Your task to perform on an android device: set the stopwatch Image 0: 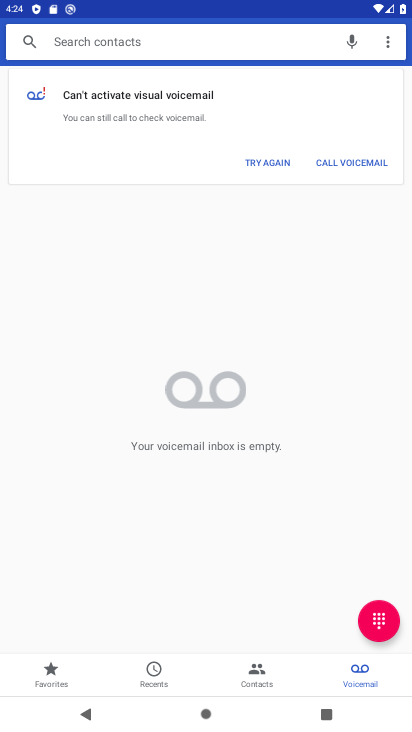
Step 0: press home button
Your task to perform on an android device: set the stopwatch Image 1: 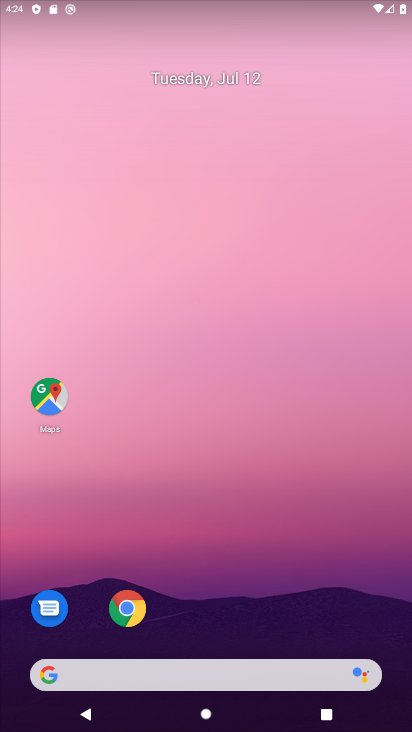
Step 1: drag from (228, 621) to (149, 98)
Your task to perform on an android device: set the stopwatch Image 2: 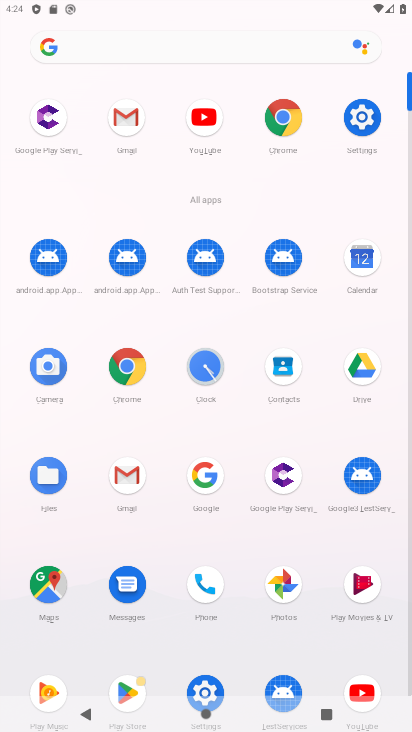
Step 2: click (210, 372)
Your task to perform on an android device: set the stopwatch Image 3: 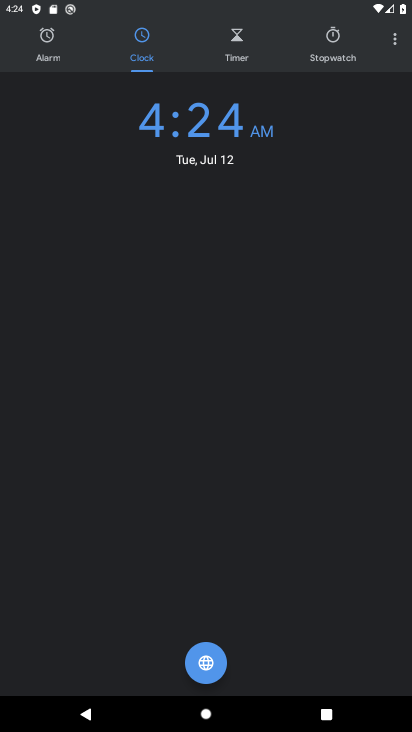
Step 3: click (321, 59)
Your task to perform on an android device: set the stopwatch Image 4: 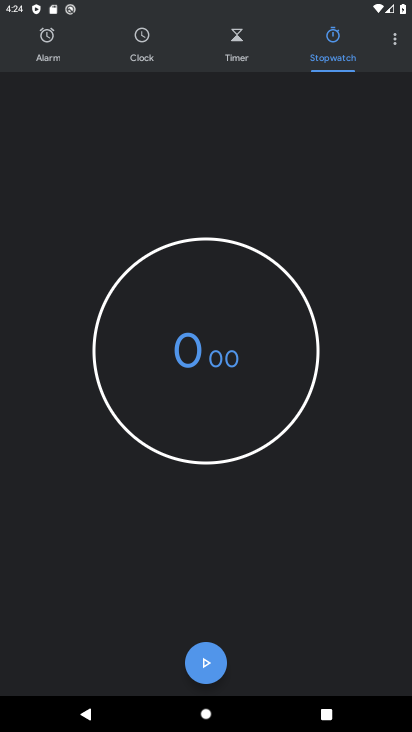
Step 4: click (213, 675)
Your task to perform on an android device: set the stopwatch Image 5: 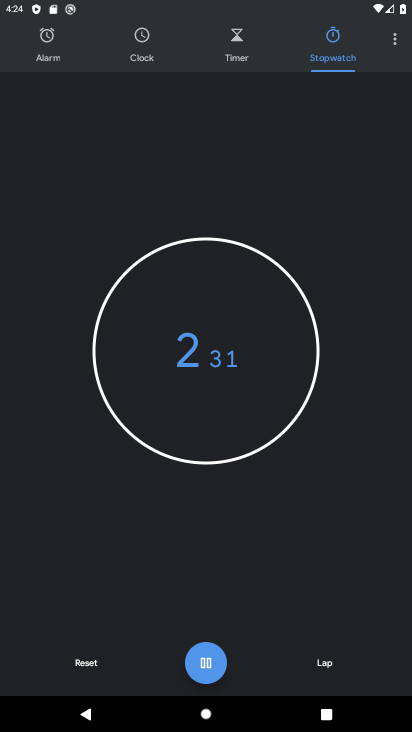
Step 5: task complete